Your task to perform on an android device: Open Amazon Image 0: 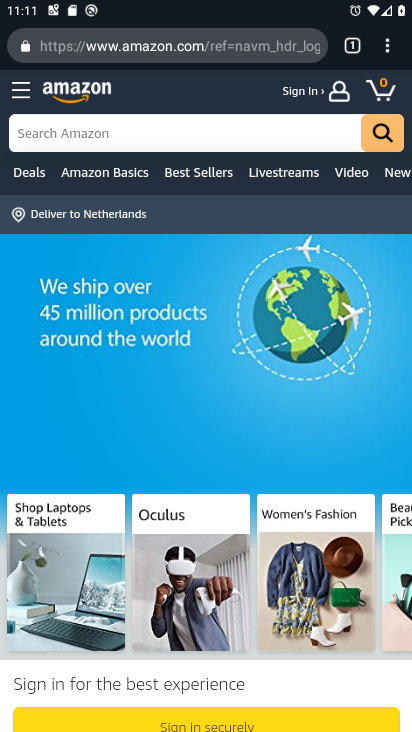
Step 0: click (239, 245)
Your task to perform on an android device: Open Amazon Image 1: 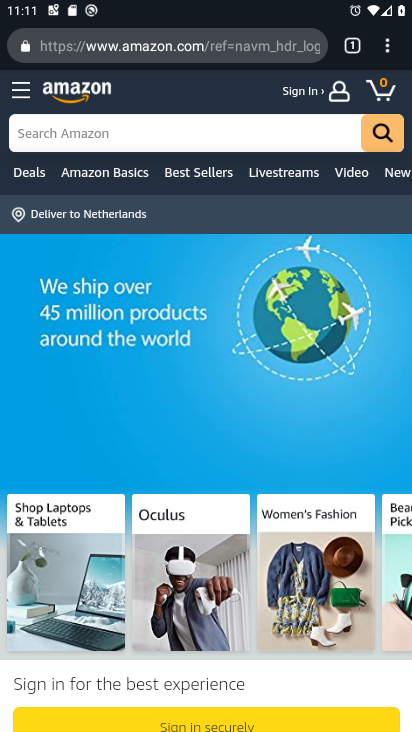
Step 1: task complete